Your task to perform on an android device: check storage Image 0: 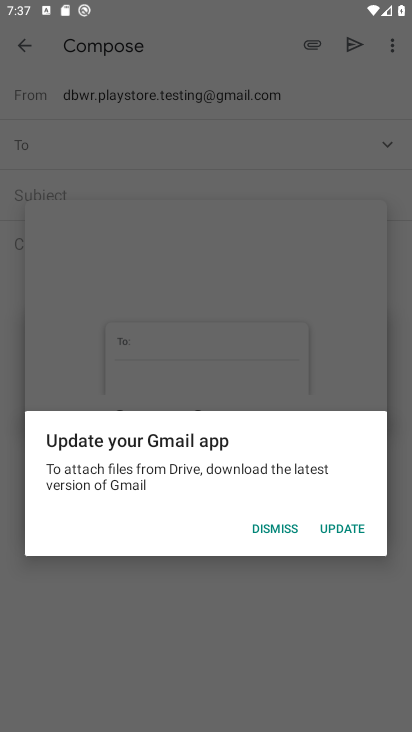
Step 0: press home button
Your task to perform on an android device: check storage Image 1: 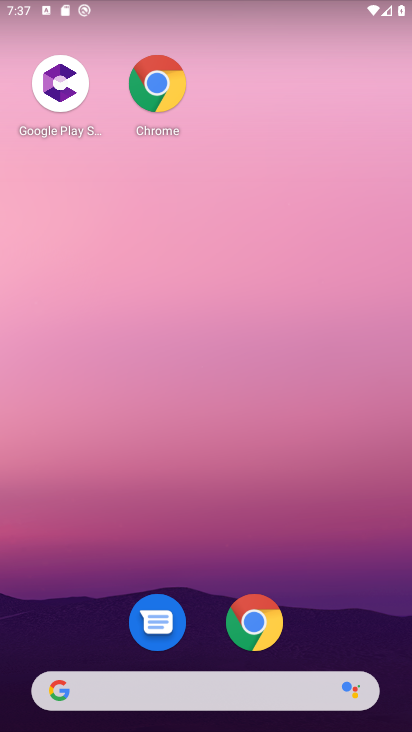
Step 1: drag from (271, 716) to (264, 4)
Your task to perform on an android device: check storage Image 2: 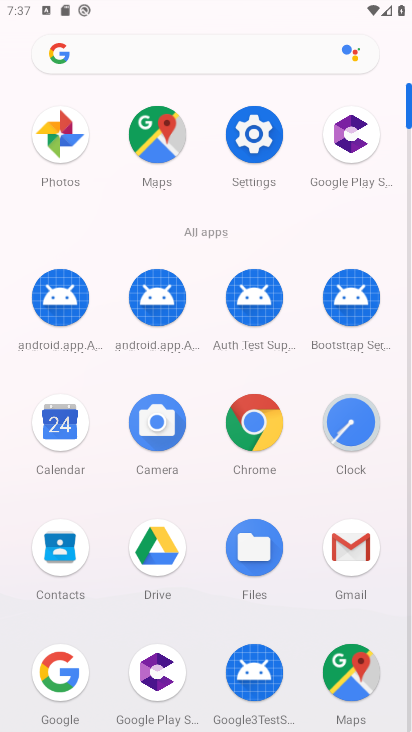
Step 2: click (268, 130)
Your task to perform on an android device: check storage Image 3: 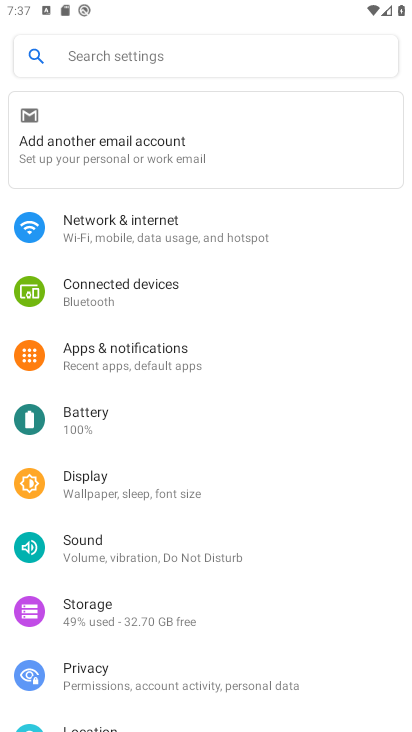
Step 3: click (155, 66)
Your task to perform on an android device: check storage Image 4: 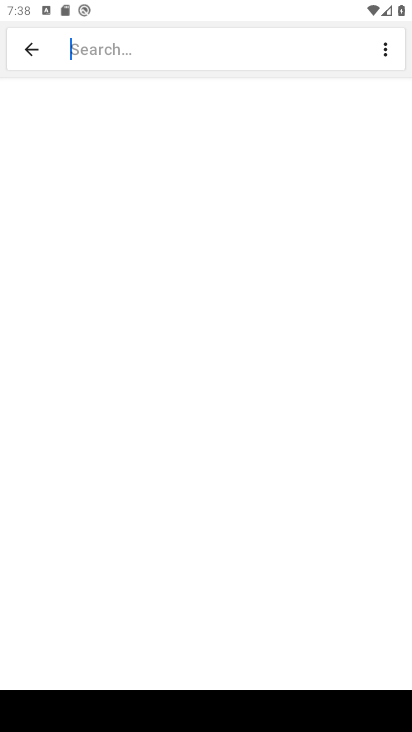
Step 4: drag from (381, 697) to (326, 392)
Your task to perform on an android device: check storage Image 5: 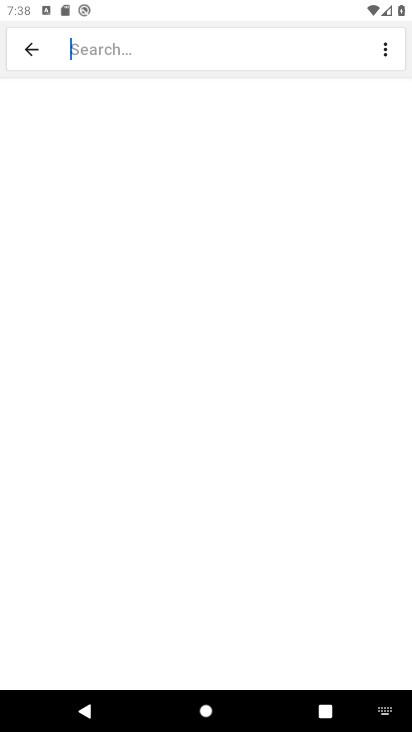
Step 5: click (400, 709)
Your task to perform on an android device: check storage Image 6: 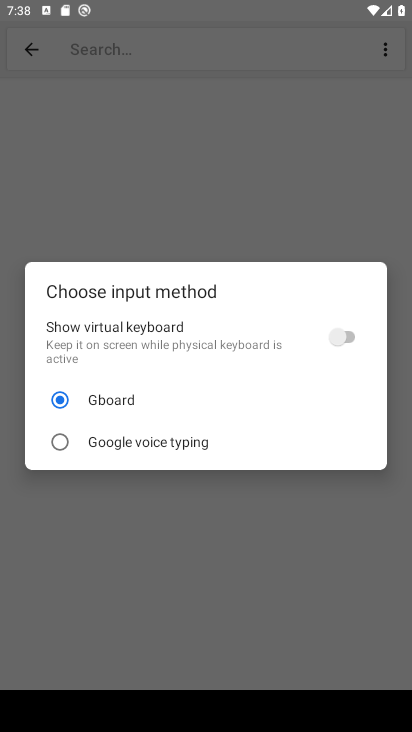
Step 6: click (353, 334)
Your task to perform on an android device: check storage Image 7: 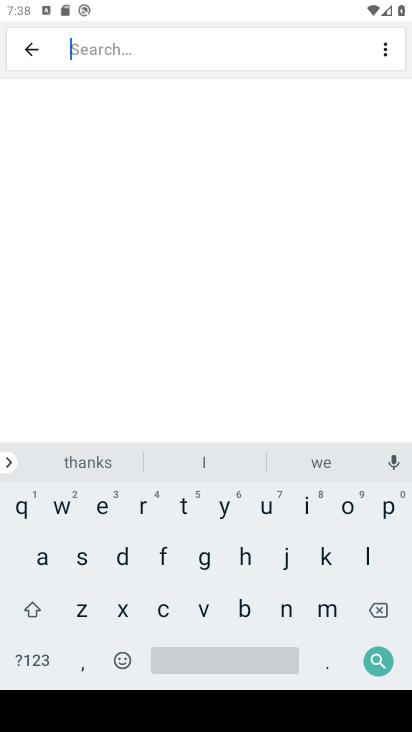
Step 7: click (100, 37)
Your task to perform on an android device: check storage Image 8: 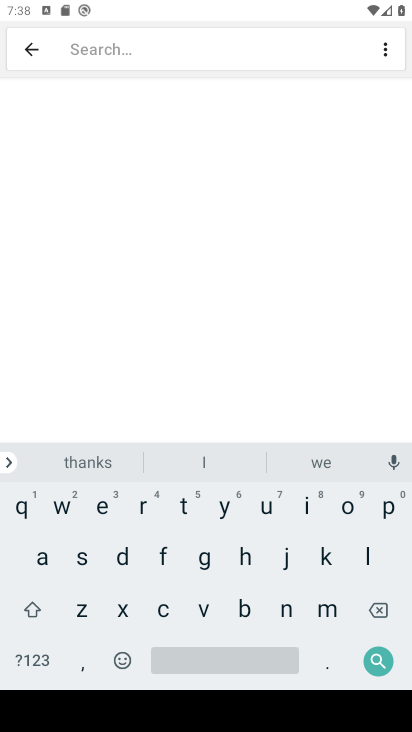
Step 8: click (79, 558)
Your task to perform on an android device: check storage Image 9: 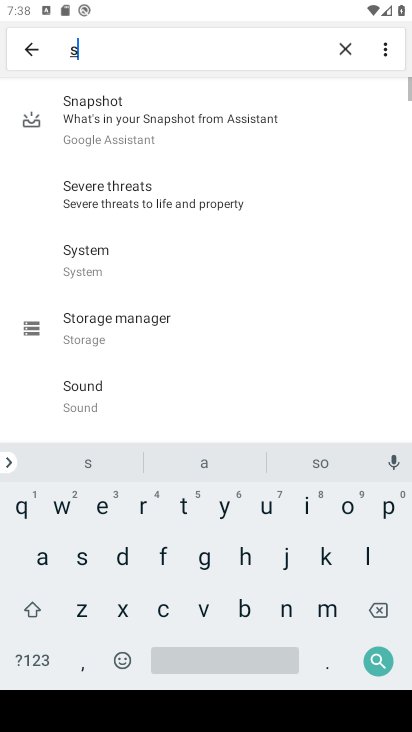
Step 9: click (189, 508)
Your task to perform on an android device: check storage Image 10: 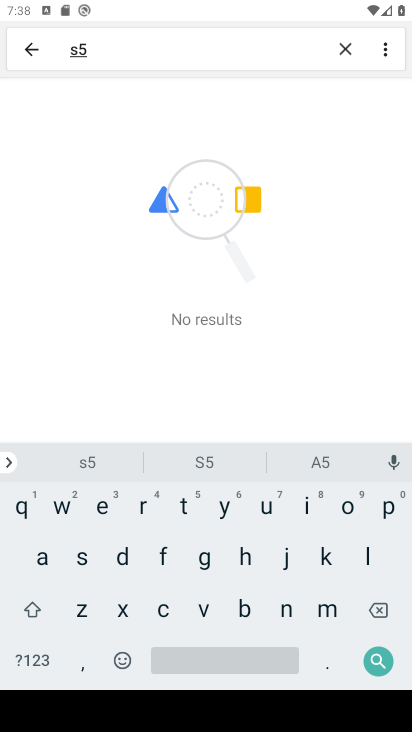
Step 10: click (378, 611)
Your task to perform on an android device: check storage Image 11: 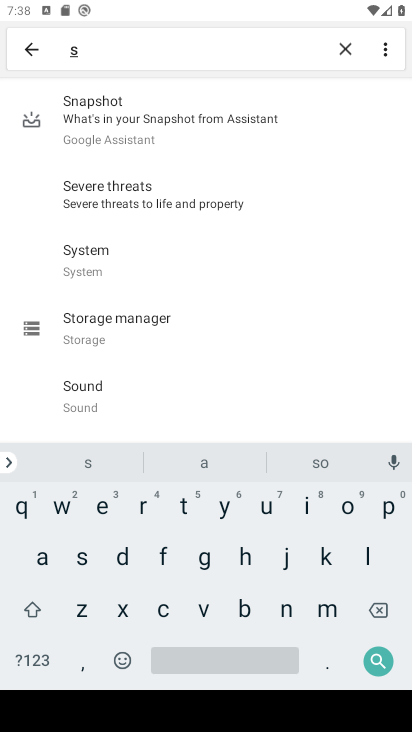
Step 11: click (187, 503)
Your task to perform on an android device: check storage Image 12: 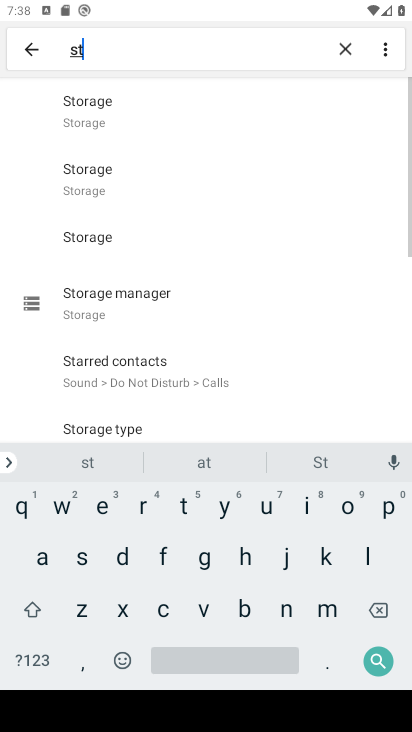
Step 12: click (119, 120)
Your task to perform on an android device: check storage Image 13: 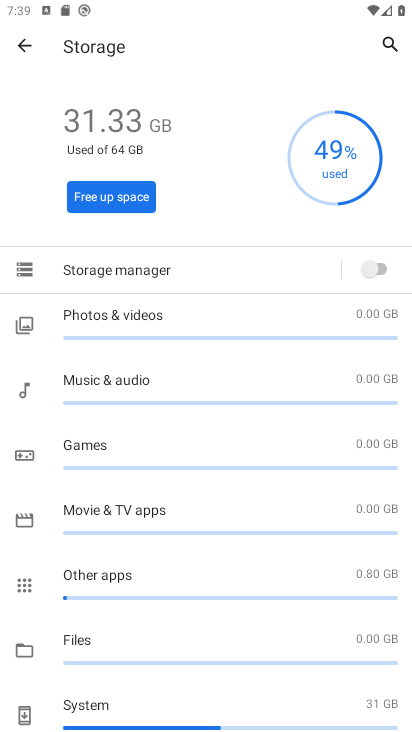
Step 13: task complete